Your task to perform on an android device: Search for razer blade on newegg.com, select the first entry, and add it to the cart. Image 0: 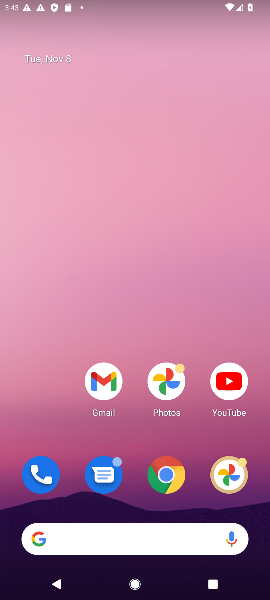
Step 0: drag from (127, 543) to (125, 192)
Your task to perform on an android device: Search for razer blade on newegg.com, select the first entry, and add it to the cart. Image 1: 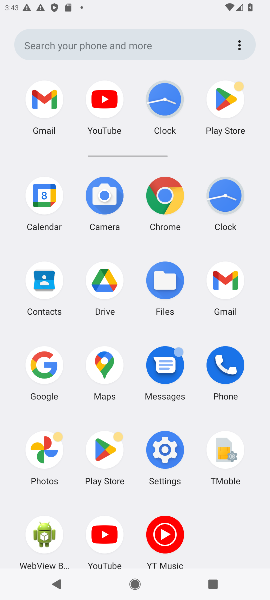
Step 1: click (48, 365)
Your task to perform on an android device: Search for razer blade on newegg.com, select the first entry, and add it to the cart. Image 2: 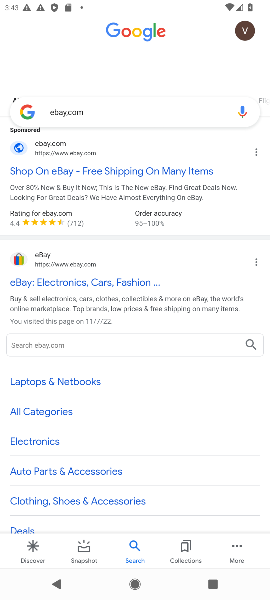
Step 2: click (92, 107)
Your task to perform on an android device: Search for razer blade on newegg.com, select the first entry, and add it to the cart. Image 3: 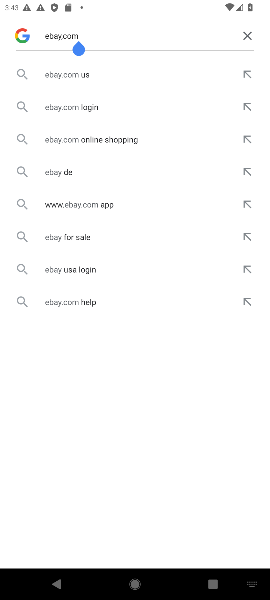
Step 3: click (242, 42)
Your task to perform on an android device: Search for razer blade on newegg.com, select the first entry, and add it to the cart. Image 4: 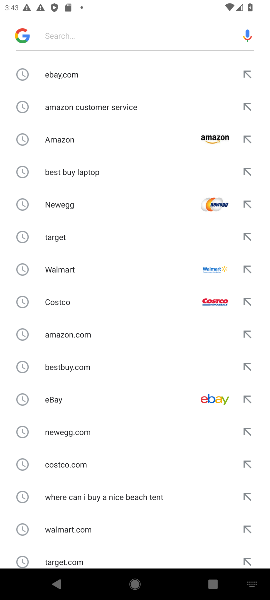
Step 4: click (250, 36)
Your task to perform on an android device: Search for razer blade on newegg.com, select the first entry, and add it to the cart. Image 5: 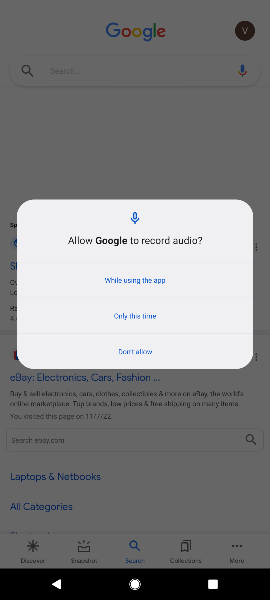
Step 5: click (133, 355)
Your task to perform on an android device: Search for razer blade on newegg.com, select the first entry, and add it to the cart. Image 6: 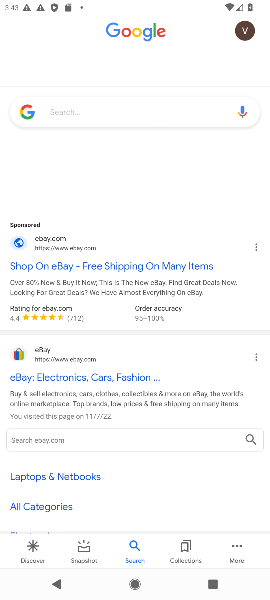
Step 6: click (99, 111)
Your task to perform on an android device: Search for razer blade on newegg.com, select the first entry, and add it to the cart. Image 7: 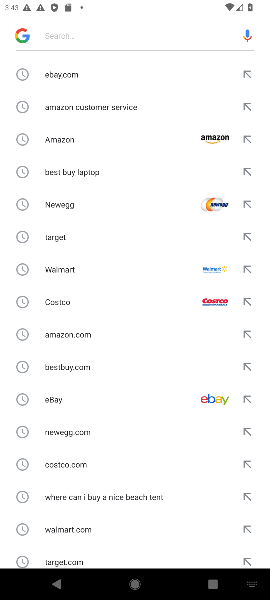
Step 7: click (84, 22)
Your task to perform on an android device: Search for razer blade on newegg.com, select the first entry, and add it to the cart. Image 8: 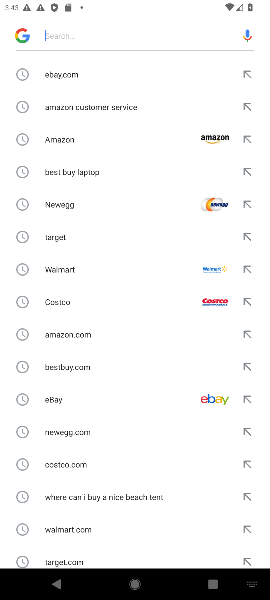
Step 8: type "razer nari  "
Your task to perform on an android device: Search for razer blade on newegg.com, select the first entry, and add it to the cart. Image 9: 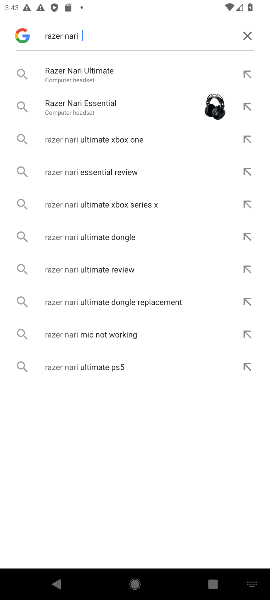
Step 9: click (71, 75)
Your task to perform on an android device: Search for razer blade on newegg.com, select the first entry, and add it to the cart. Image 10: 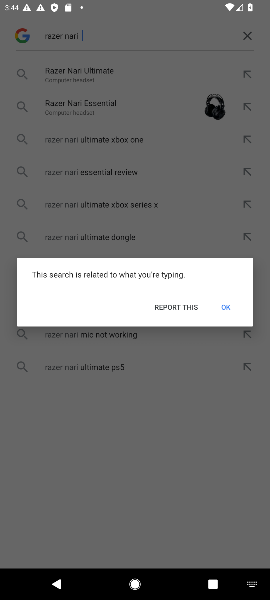
Step 10: click (221, 308)
Your task to perform on an android device: Search for razer blade on newegg.com, select the first entry, and add it to the cart. Image 11: 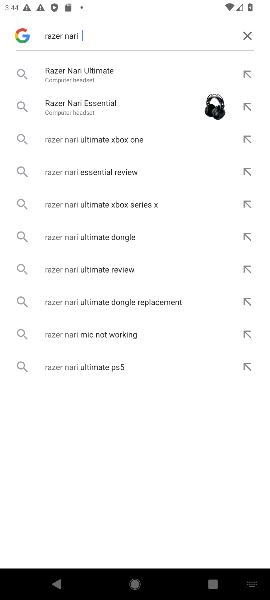
Step 11: click (249, 37)
Your task to perform on an android device: Search for razer blade on newegg.com, select the first entry, and add it to the cart. Image 12: 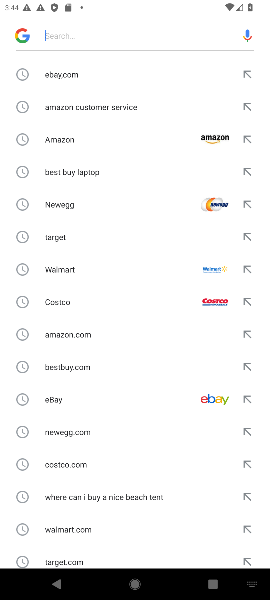
Step 12: click (97, 29)
Your task to perform on an android device: Search for razer blade on newegg.com, select the first entry, and add it to the cart. Image 13: 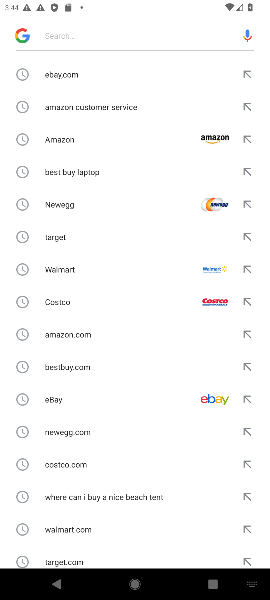
Step 13: type "newegg "
Your task to perform on an android device: Search for razer blade on newegg.com, select the first entry, and add it to the cart. Image 14: 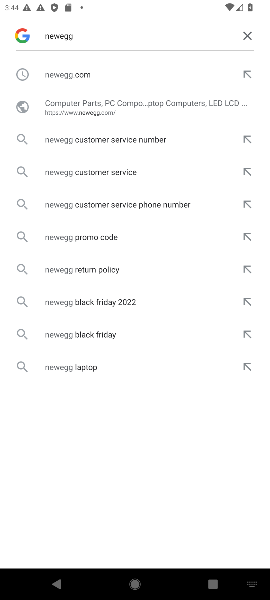
Step 14: click (65, 71)
Your task to perform on an android device: Search for razer blade on newegg.com, select the first entry, and add it to the cart. Image 15: 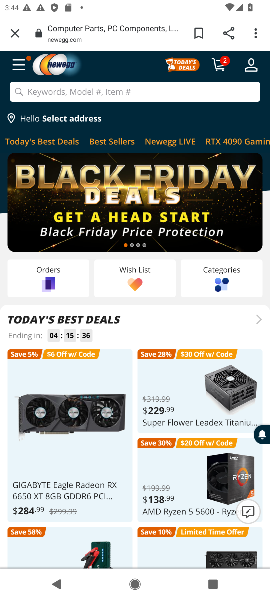
Step 15: click (88, 91)
Your task to perform on an android device: Search for razer blade on newegg.com, select the first entry, and add it to the cart. Image 16: 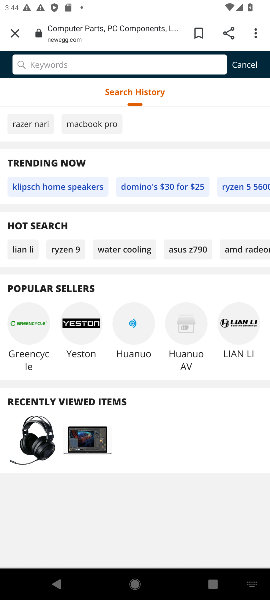
Step 16: click (98, 64)
Your task to perform on an android device: Search for razer blade on newegg.com, select the first entry, and add it to the cart. Image 17: 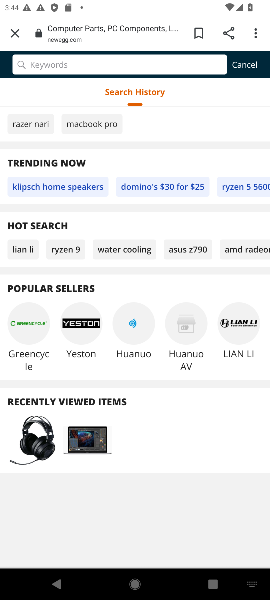
Step 17: type "razer blade  "
Your task to perform on an android device: Search for razer blade on newegg.com, select the first entry, and add it to the cart. Image 18: 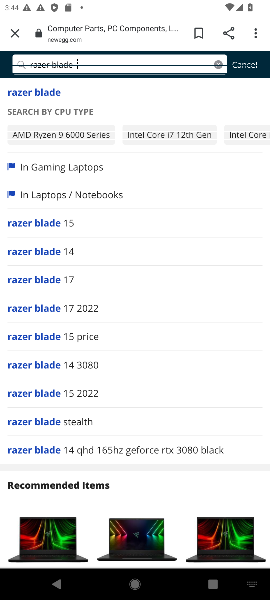
Step 18: click (51, 84)
Your task to perform on an android device: Search for razer blade on newegg.com, select the first entry, and add it to the cart. Image 19: 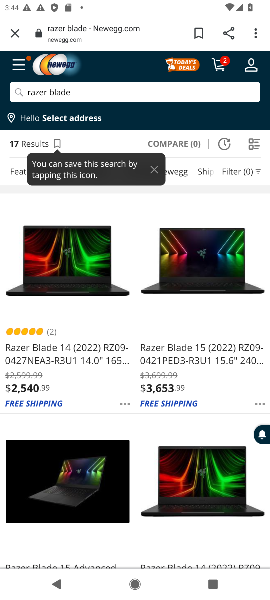
Step 19: click (77, 343)
Your task to perform on an android device: Search for razer blade on newegg.com, select the first entry, and add it to the cart. Image 20: 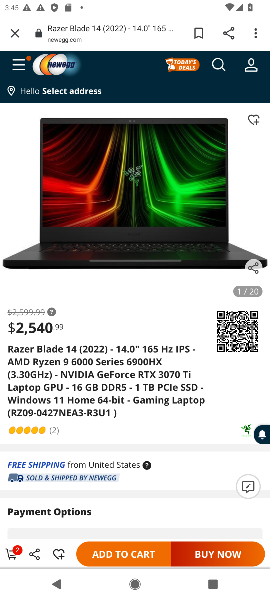
Step 20: click (114, 556)
Your task to perform on an android device: Search for razer blade on newegg.com, select the first entry, and add it to the cart. Image 21: 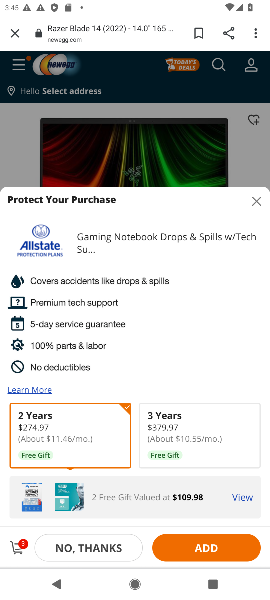
Step 21: click (213, 546)
Your task to perform on an android device: Search for razer blade on newegg.com, select the first entry, and add it to the cart. Image 22: 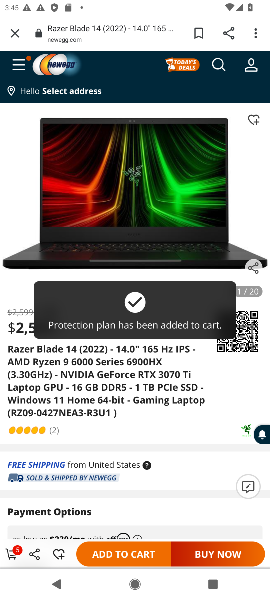
Step 22: click (110, 556)
Your task to perform on an android device: Search for razer blade on newegg.com, select the first entry, and add it to the cart. Image 23: 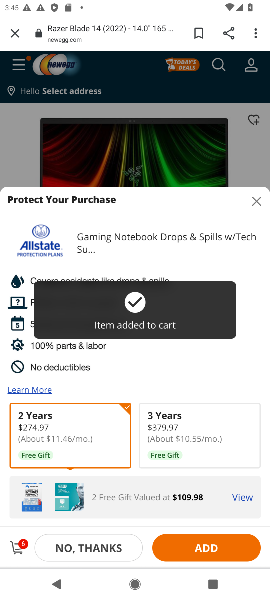
Step 23: task complete